Your task to perform on an android device: Open Maps and search for coffee Image 0: 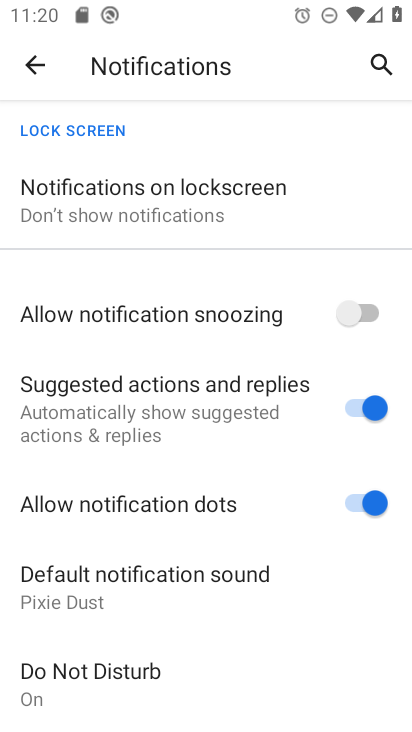
Step 0: press home button
Your task to perform on an android device: Open Maps and search for coffee Image 1: 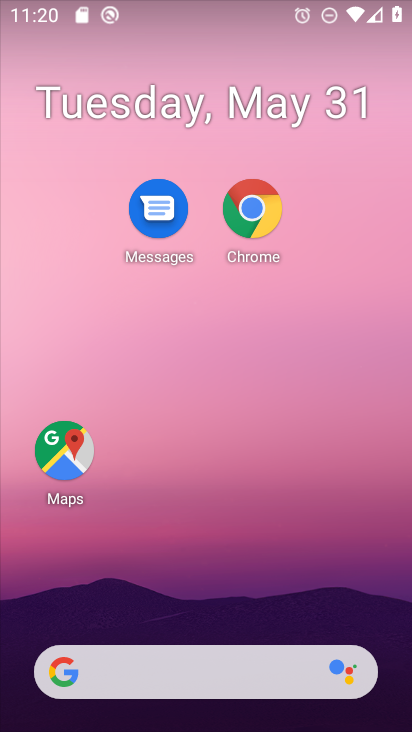
Step 1: click (62, 448)
Your task to perform on an android device: Open Maps and search for coffee Image 2: 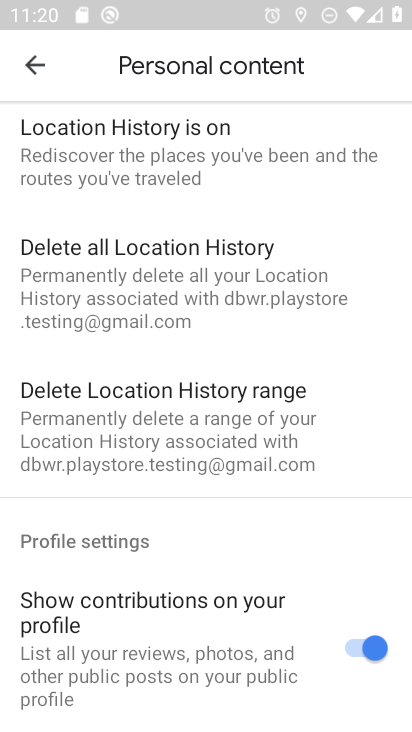
Step 2: click (39, 60)
Your task to perform on an android device: Open Maps and search for coffee Image 3: 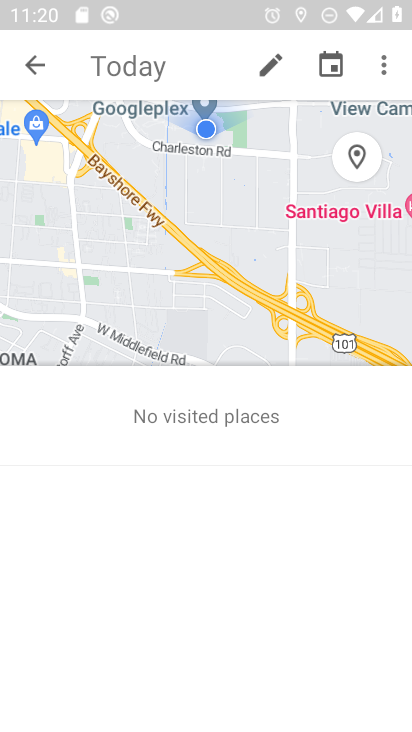
Step 3: click (35, 65)
Your task to perform on an android device: Open Maps and search for coffee Image 4: 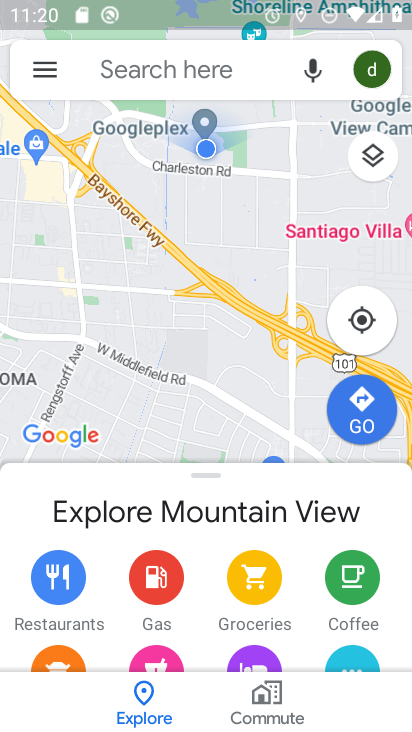
Step 4: click (165, 58)
Your task to perform on an android device: Open Maps and search for coffee Image 5: 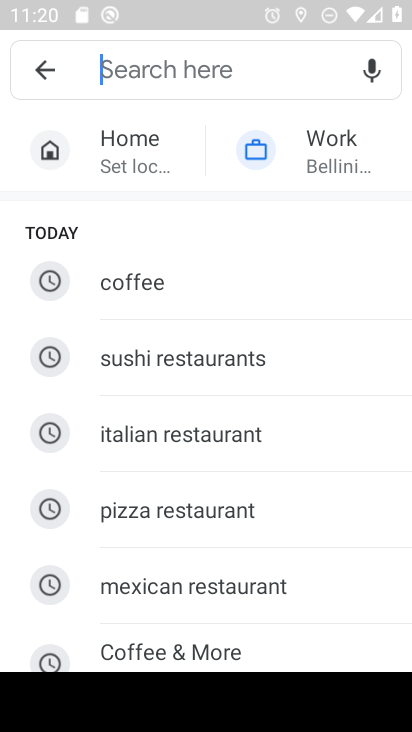
Step 5: click (172, 283)
Your task to perform on an android device: Open Maps and search for coffee Image 6: 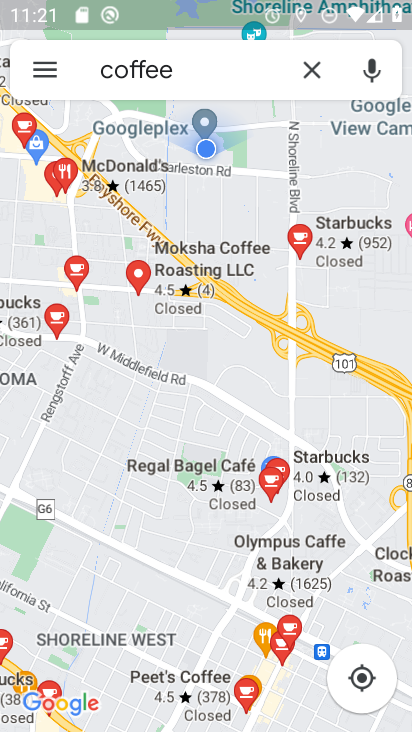
Step 6: task complete